Your task to perform on an android device: Open the calendar app, open the side menu, and click the "Day" option Image 0: 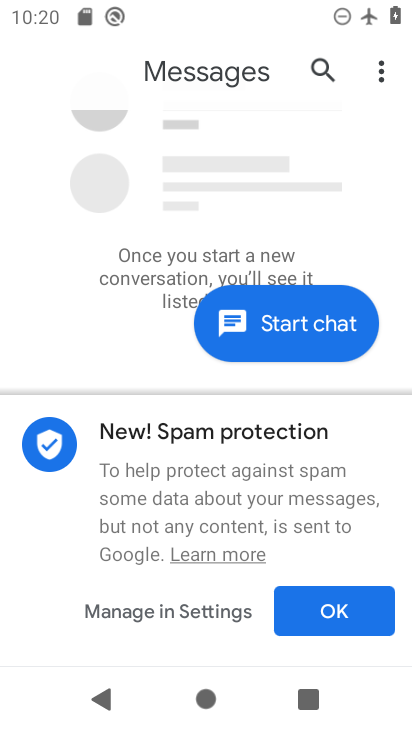
Step 0: press home button
Your task to perform on an android device: Open the calendar app, open the side menu, and click the "Day" option Image 1: 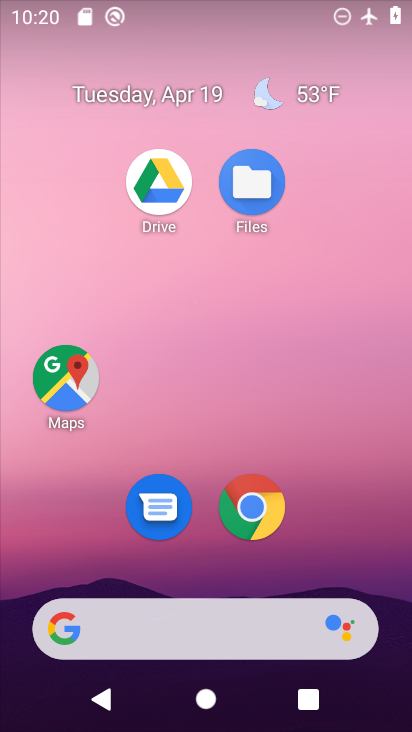
Step 1: drag from (357, 486) to (352, 115)
Your task to perform on an android device: Open the calendar app, open the side menu, and click the "Day" option Image 2: 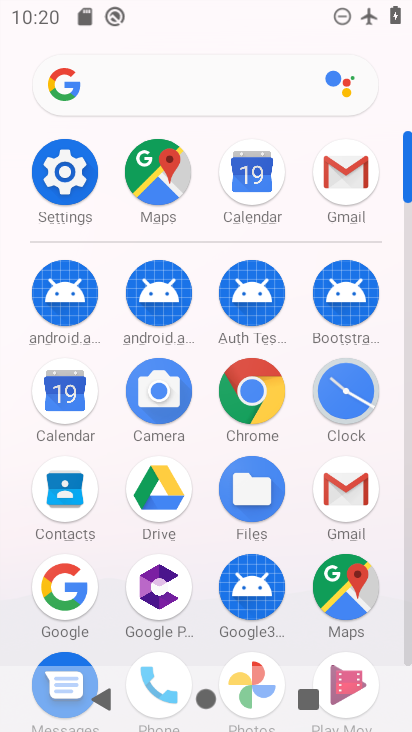
Step 2: click (269, 177)
Your task to perform on an android device: Open the calendar app, open the side menu, and click the "Day" option Image 3: 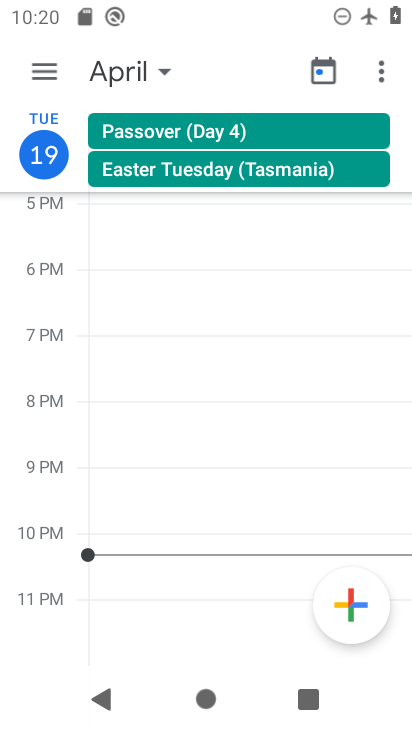
Step 3: click (37, 64)
Your task to perform on an android device: Open the calendar app, open the side menu, and click the "Day" option Image 4: 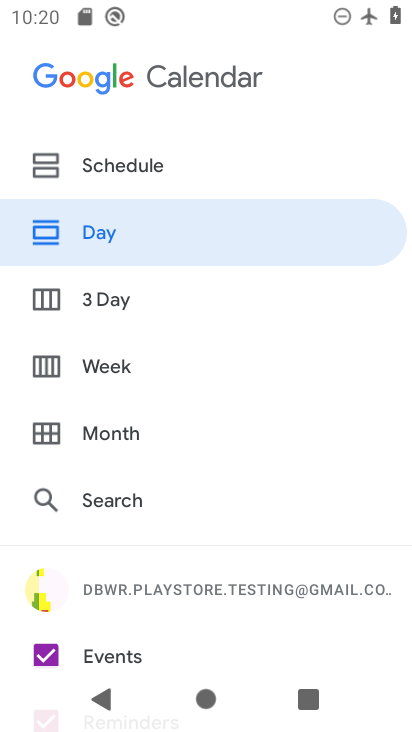
Step 4: click (82, 234)
Your task to perform on an android device: Open the calendar app, open the side menu, and click the "Day" option Image 5: 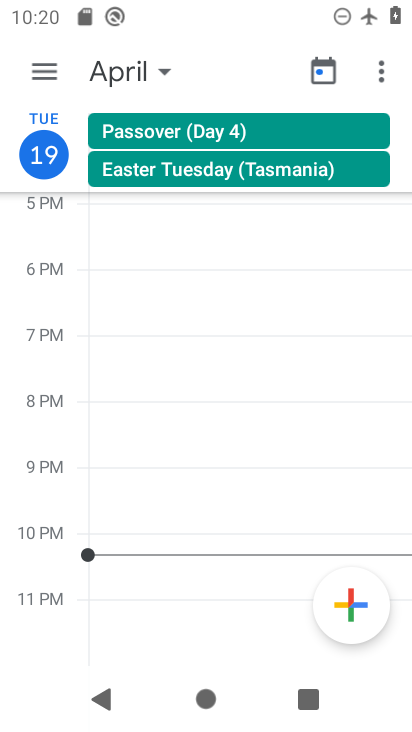
Step 5: task complete